Your task to perform on an android device: open chrome and create a bookmark for the current page Image 0: 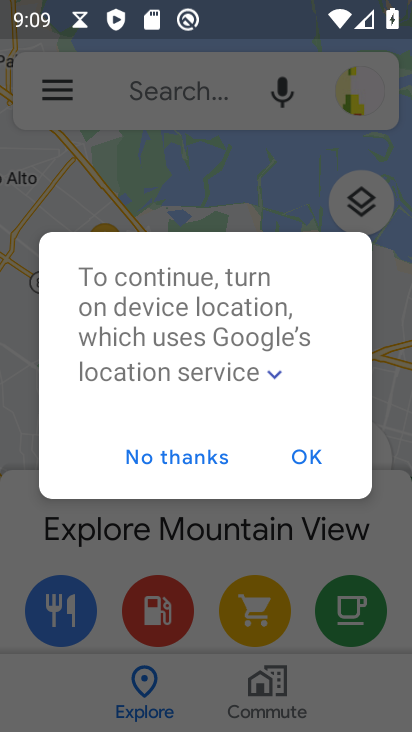
Step 0: press home button
Your task to perform on an android device: open chrome and create a bookmark for the current page Image 1: 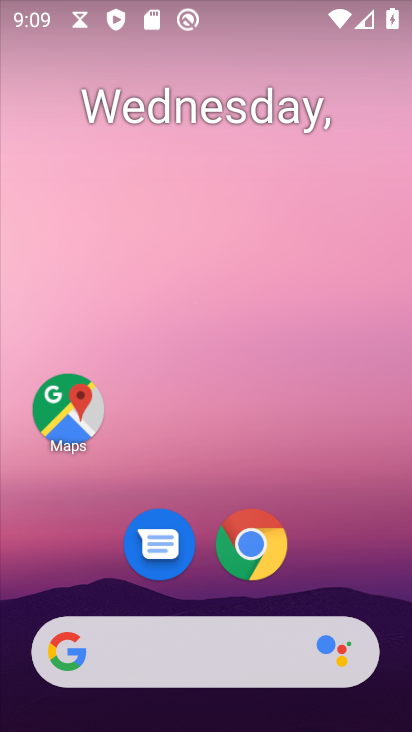
Step 1: drag from (172, 563) to (307, 95)
Your task to perform on an android device: open chrome and create a bookmark for the current page Image 2: 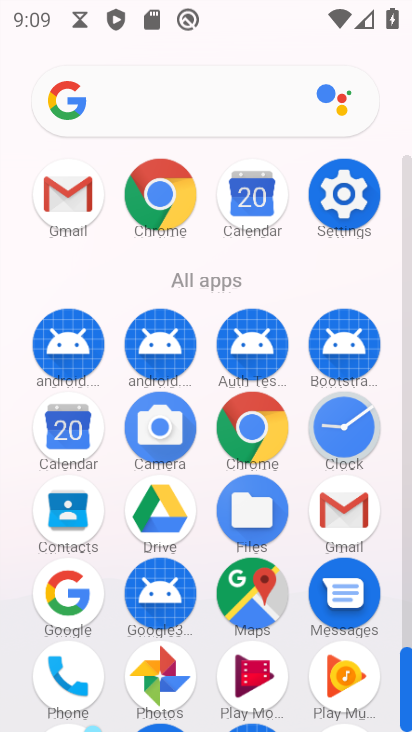
Step 2: click (153, 206)
Your task to perform on an android device: open chrome and create a bookmark for the current page Image 3: 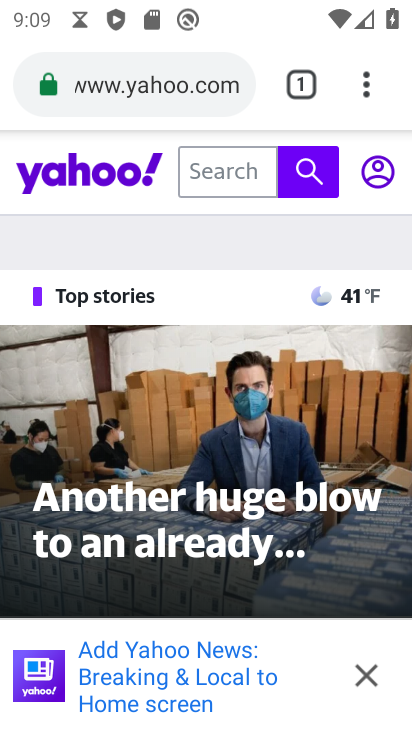
Step 3: click (361, 102)
Your task to perform on an android device: open chrome and create a bookmark for the current page Image 4: 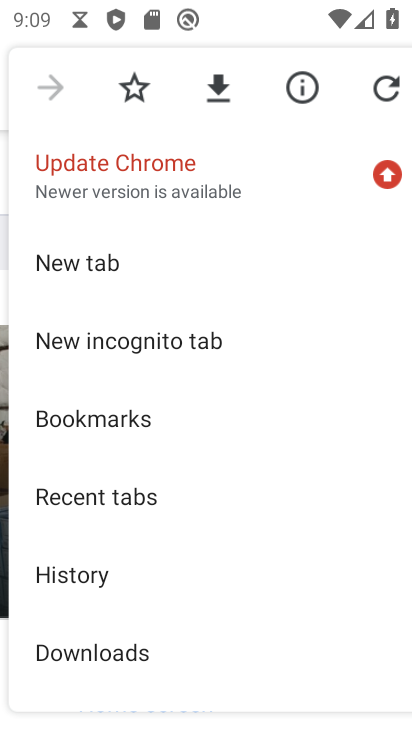
Step 4: click (134, 88)
Your task to perform on an android device: open chrome and create a bookmark for the current page Image 5: 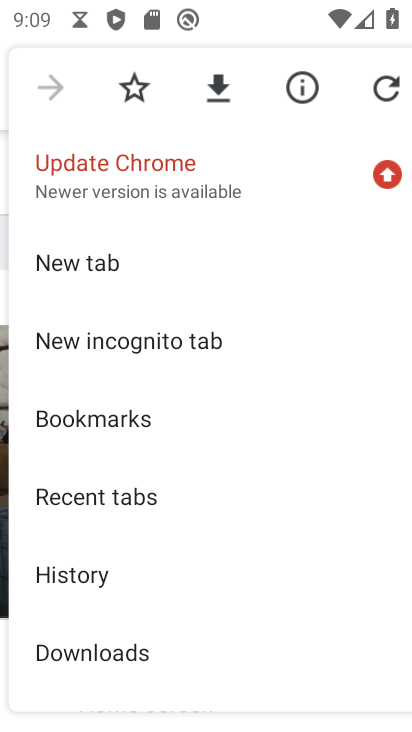
Step 5: click (135, 88)
Your task to perform on an android device: open chrome and create a bookmark for the current page Image 6: 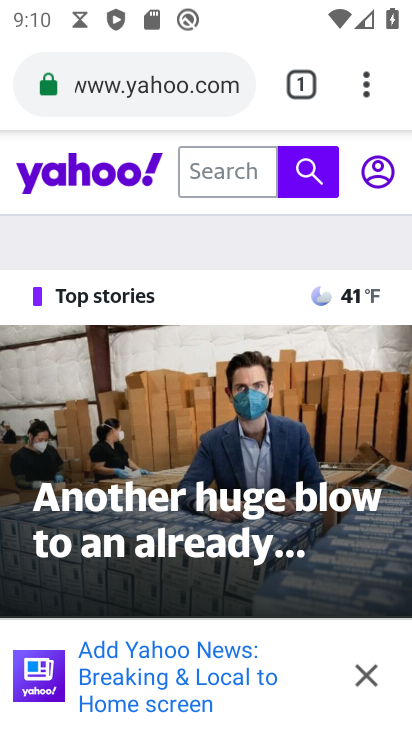
Step 6: task complete